Your task to perform on an android device: open app "Google Chrome" Image 0: 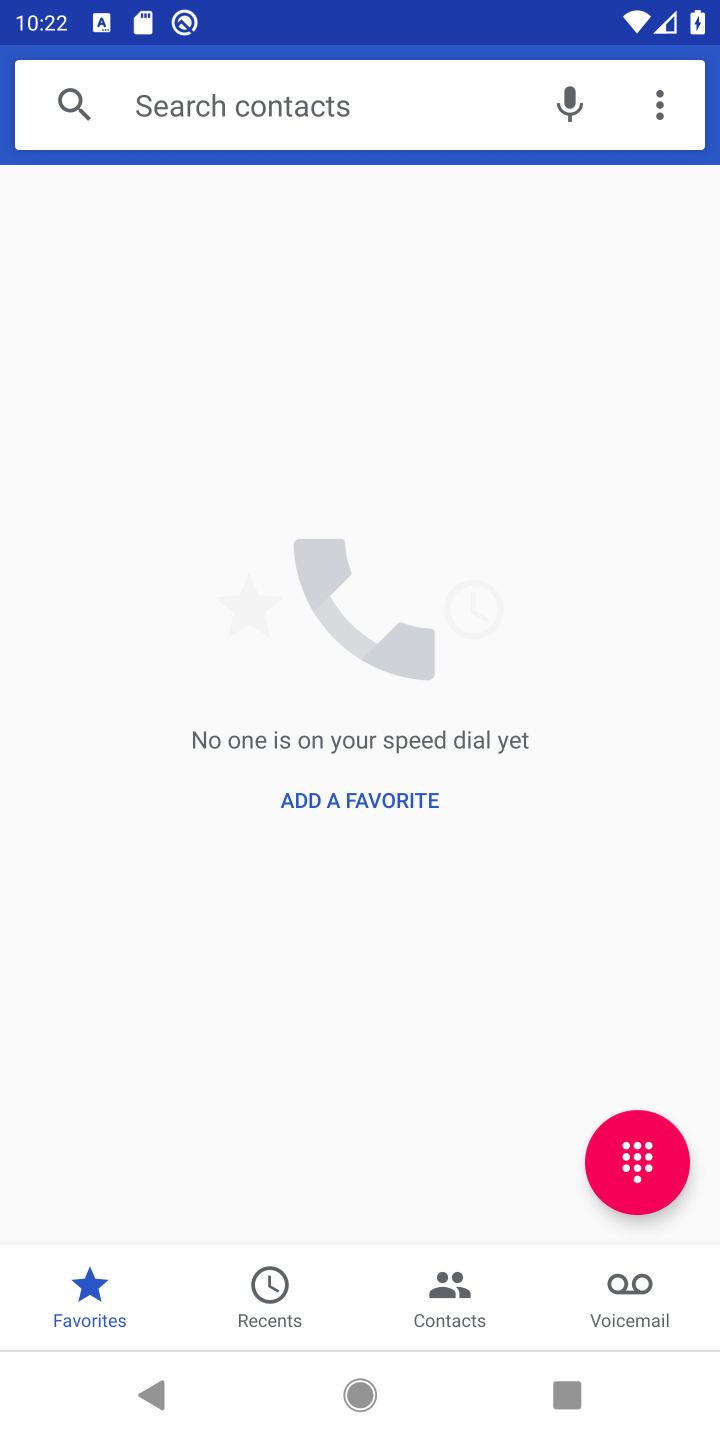
Step 0: press home button
Your task to perform on an android device: open app "Google Chrome" Image 1: 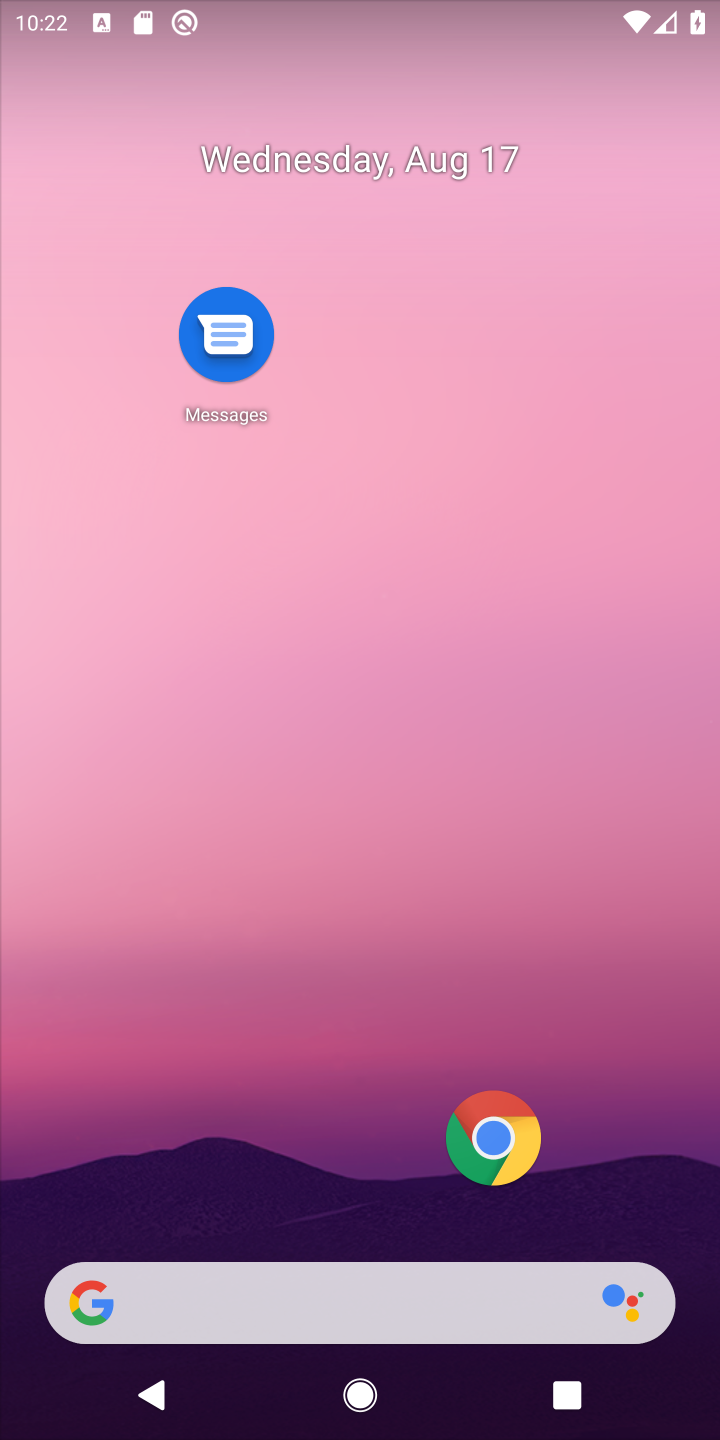
Step 1: drag from (287, 1057) to (338, 345)
Your task to perform on an android device: open app "Google Chrome" Image 2: 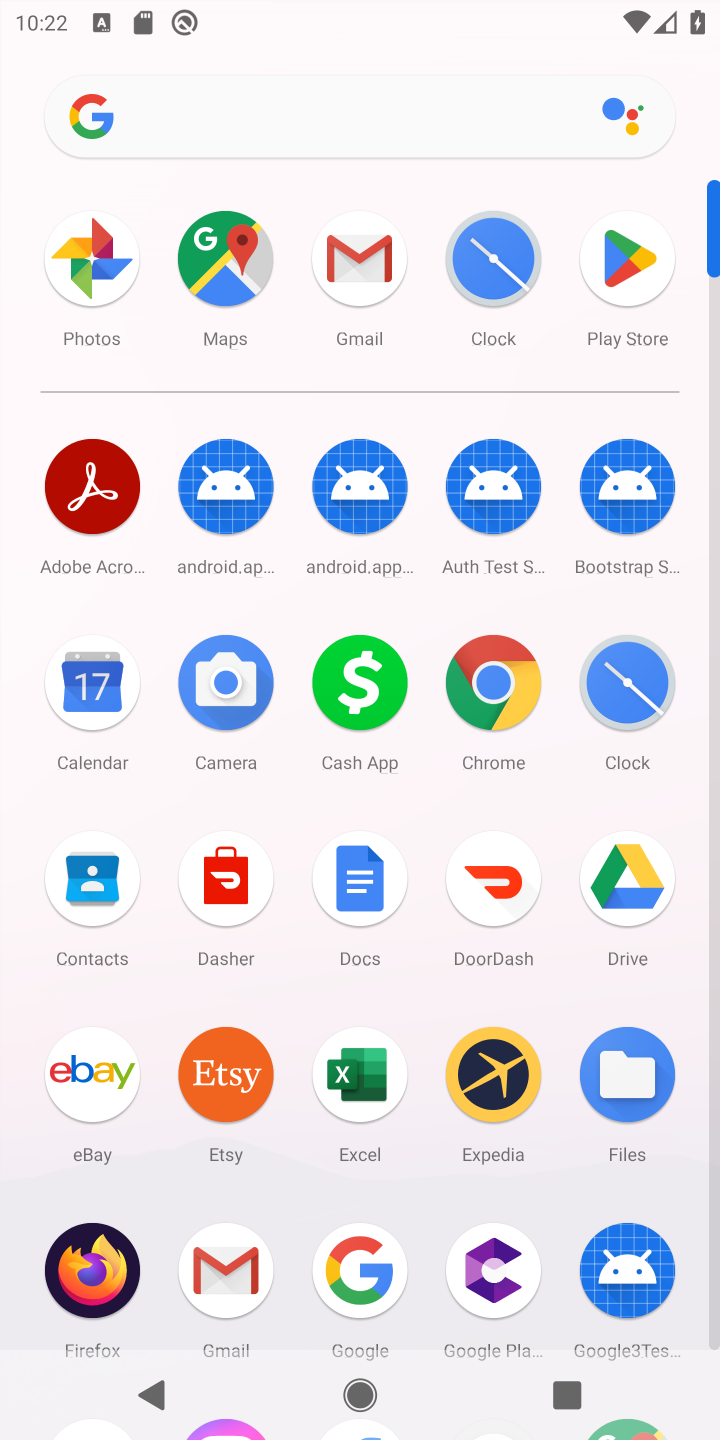
Step 2: click (614, 254)
Your task to perform on an android device: open app "Google Chrome" Image 3: 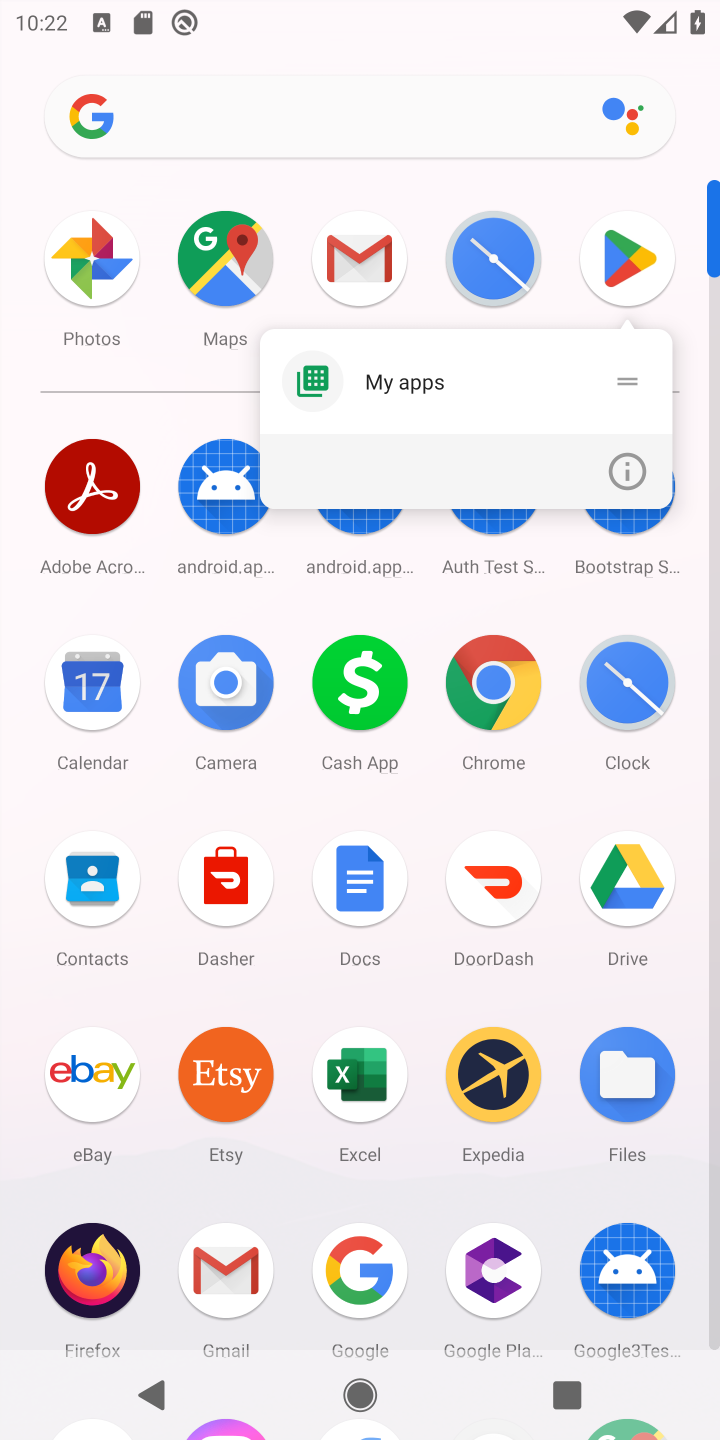
Step 3: click (643, 269)
Your task to perform on an android device: open app "Google Chrome" Image 4: 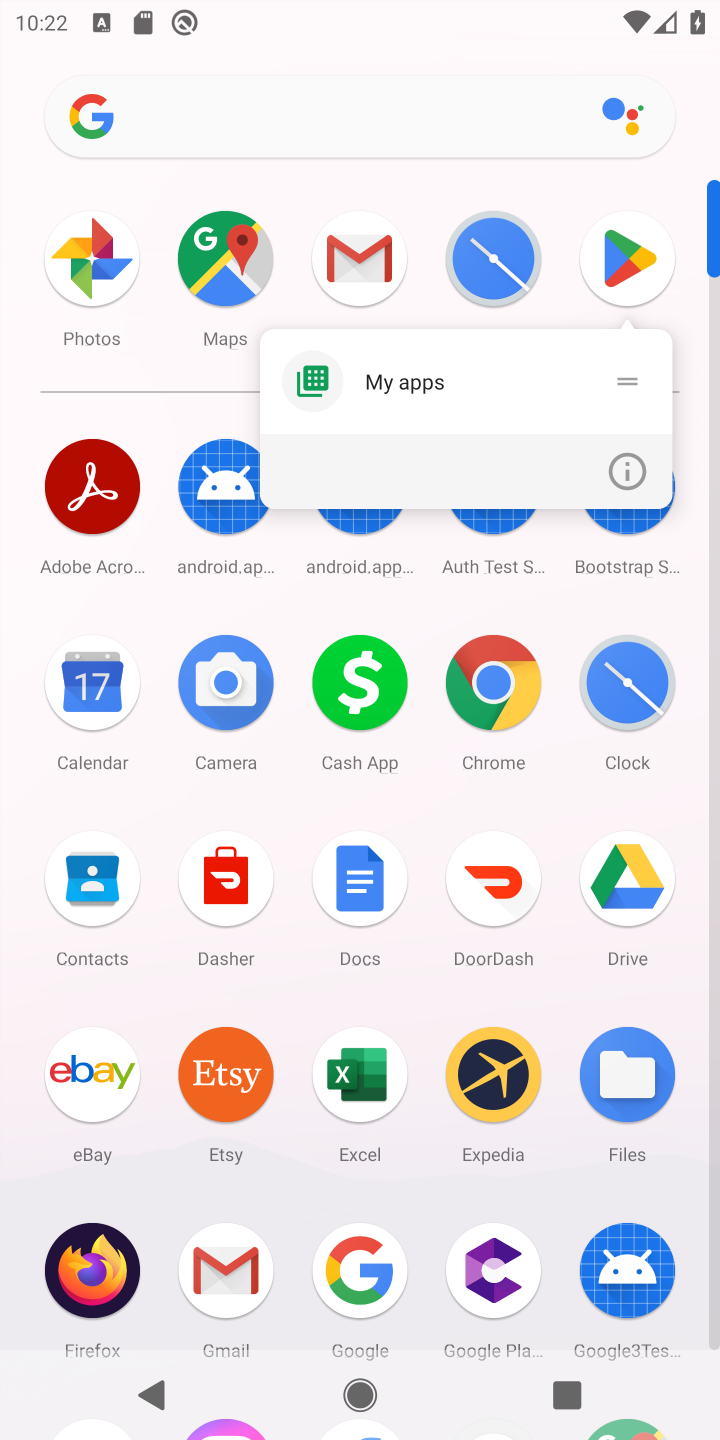
Step 4: click (639, 269)
Your task to perform on an android device: open app "Google Chrome" Image 5: 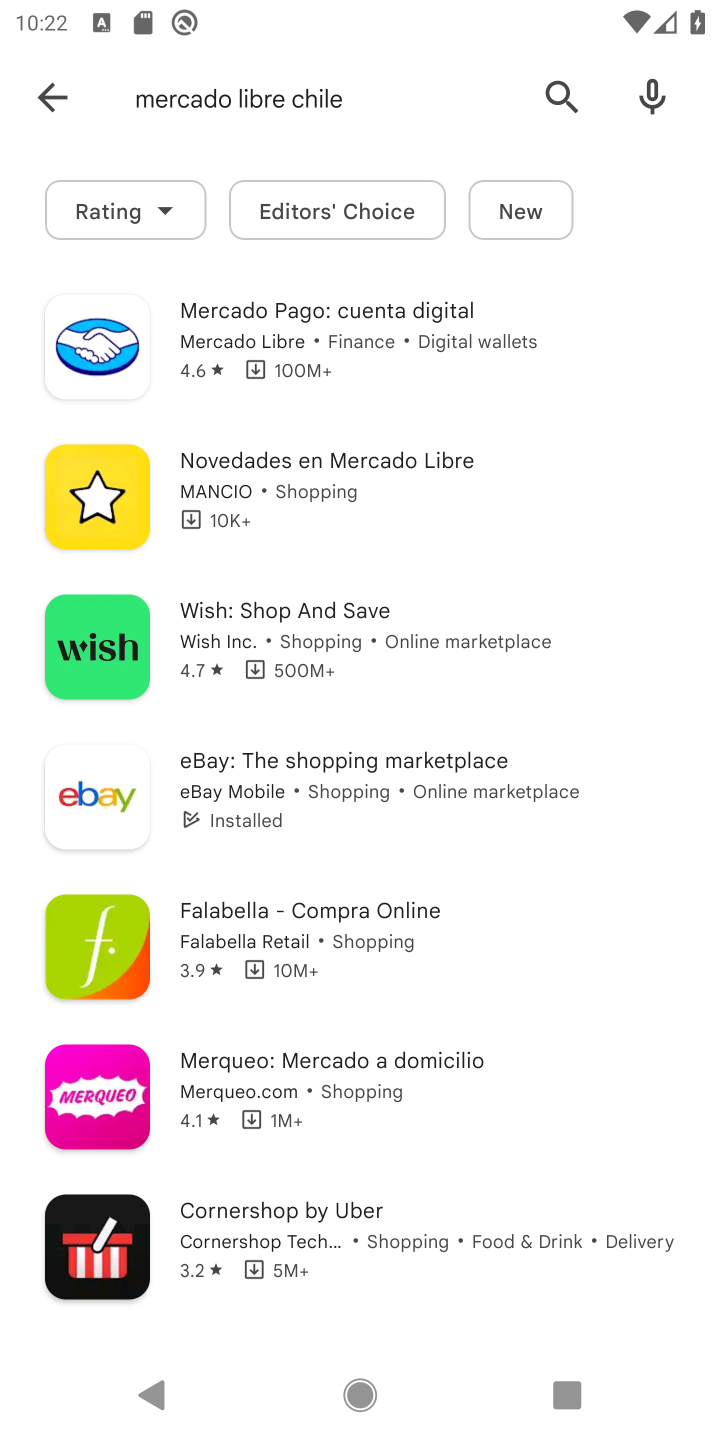
Step 5: click (100, 137)
Your task to perform on an android device: open app "Google Chrome" Image 6: 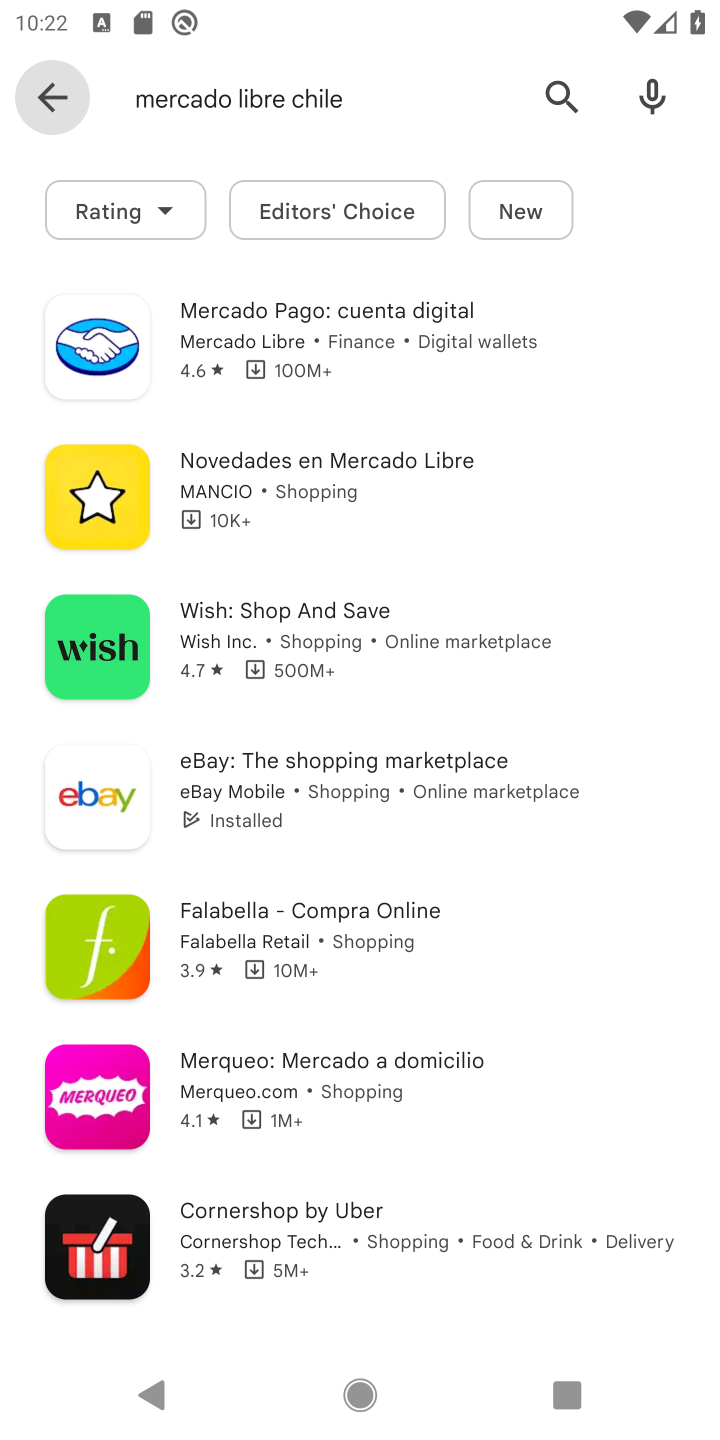
Step 6: click (60, 99)
Your task to perform on an android device: open app "Google Chrome" Image 7: 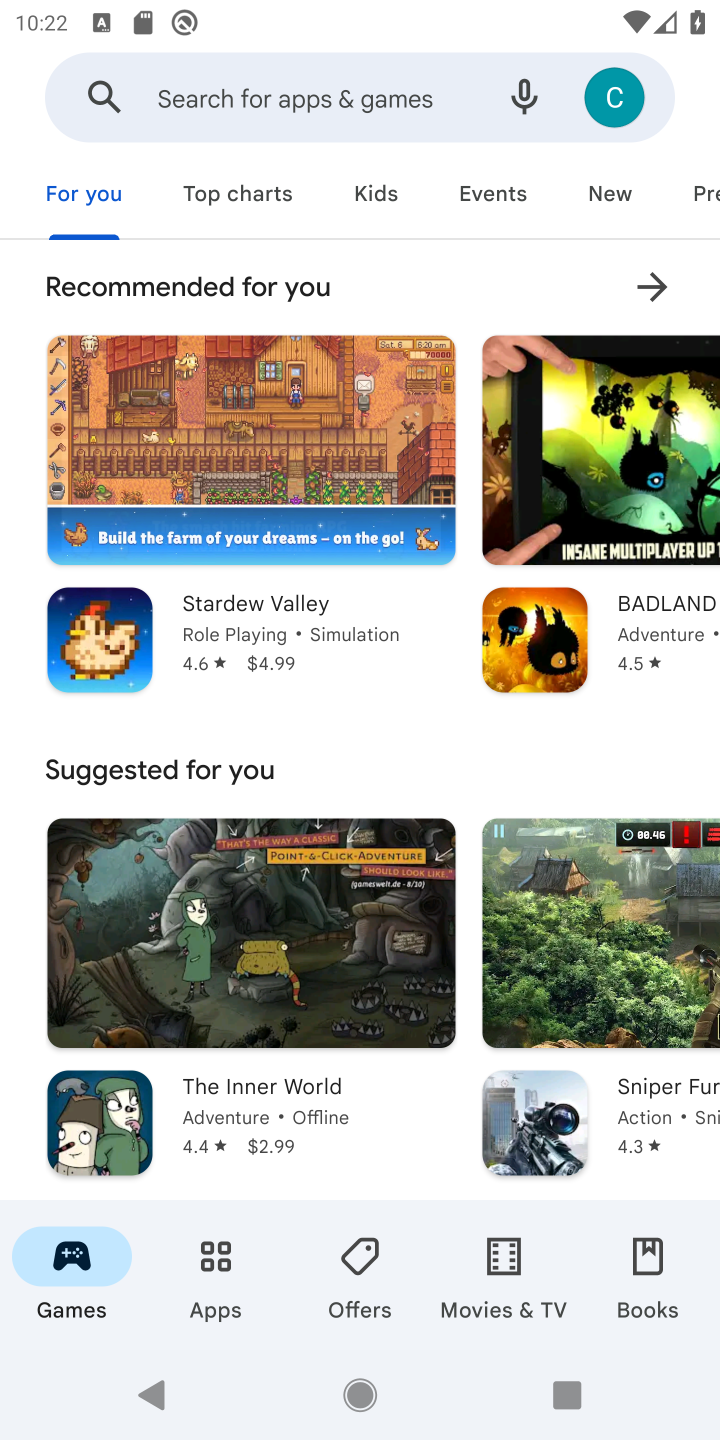
Step 7: click (285, 93)
Your task to perform on an android device: open app "Google Chrome" Image 8: 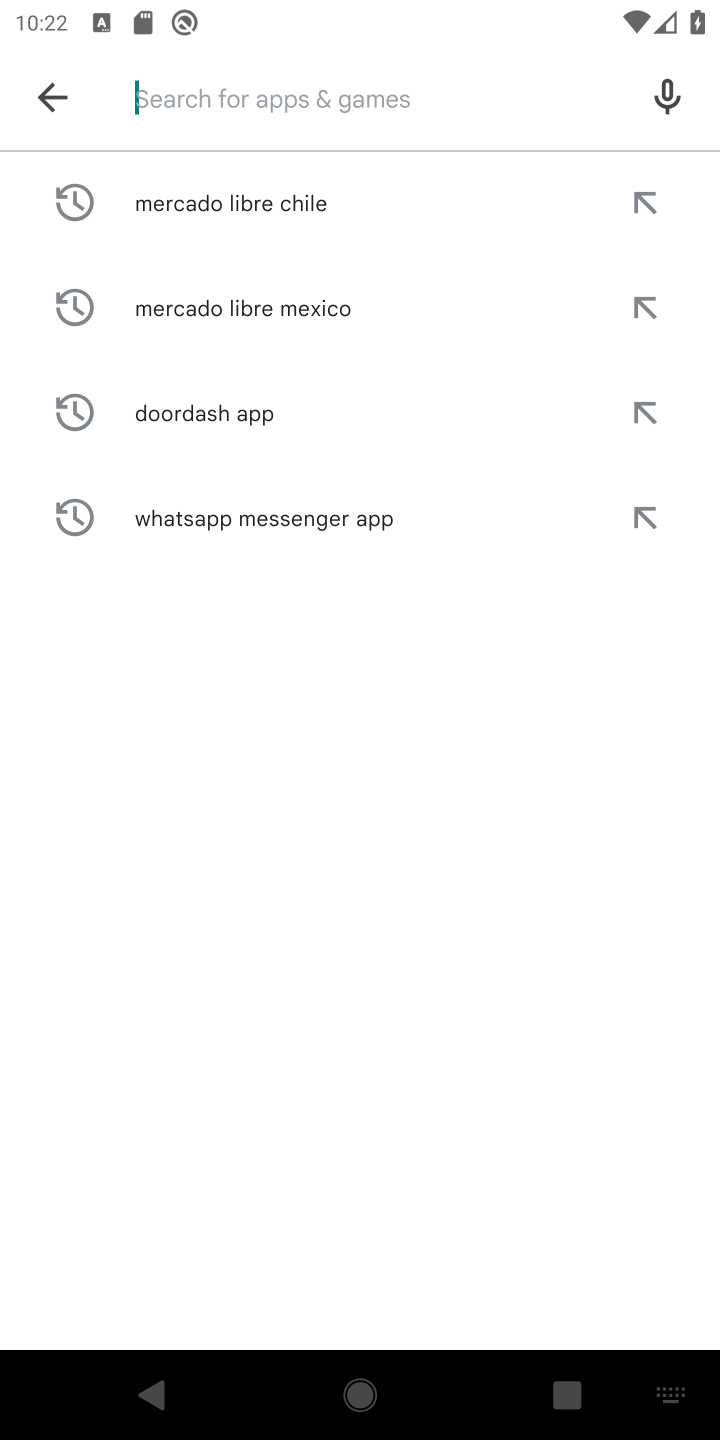
Step 8: type "google chrome "
Your task to perform on an android device: open app "Google Chrome" Image 9: 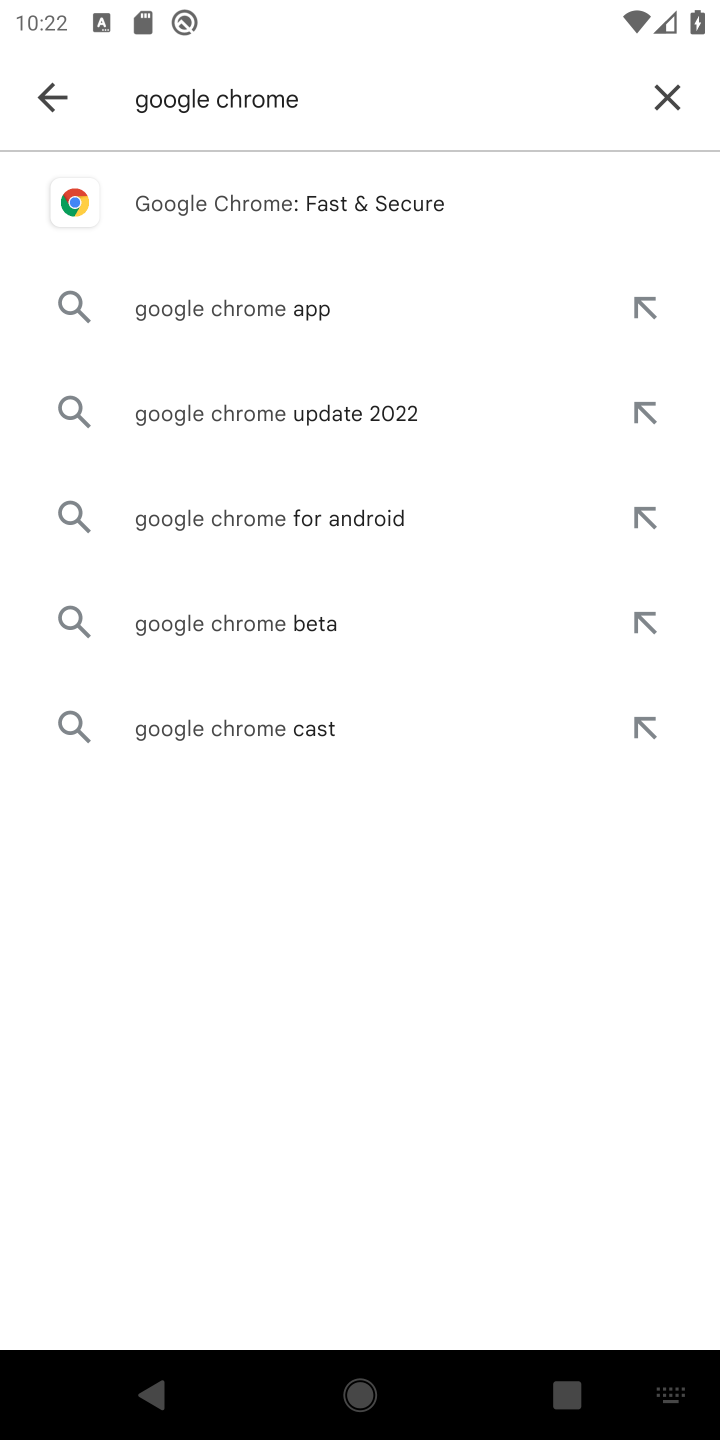
Step 9: click (269, 300)
Your task to perform on an android device: open app "Google Chrome" Image 10: 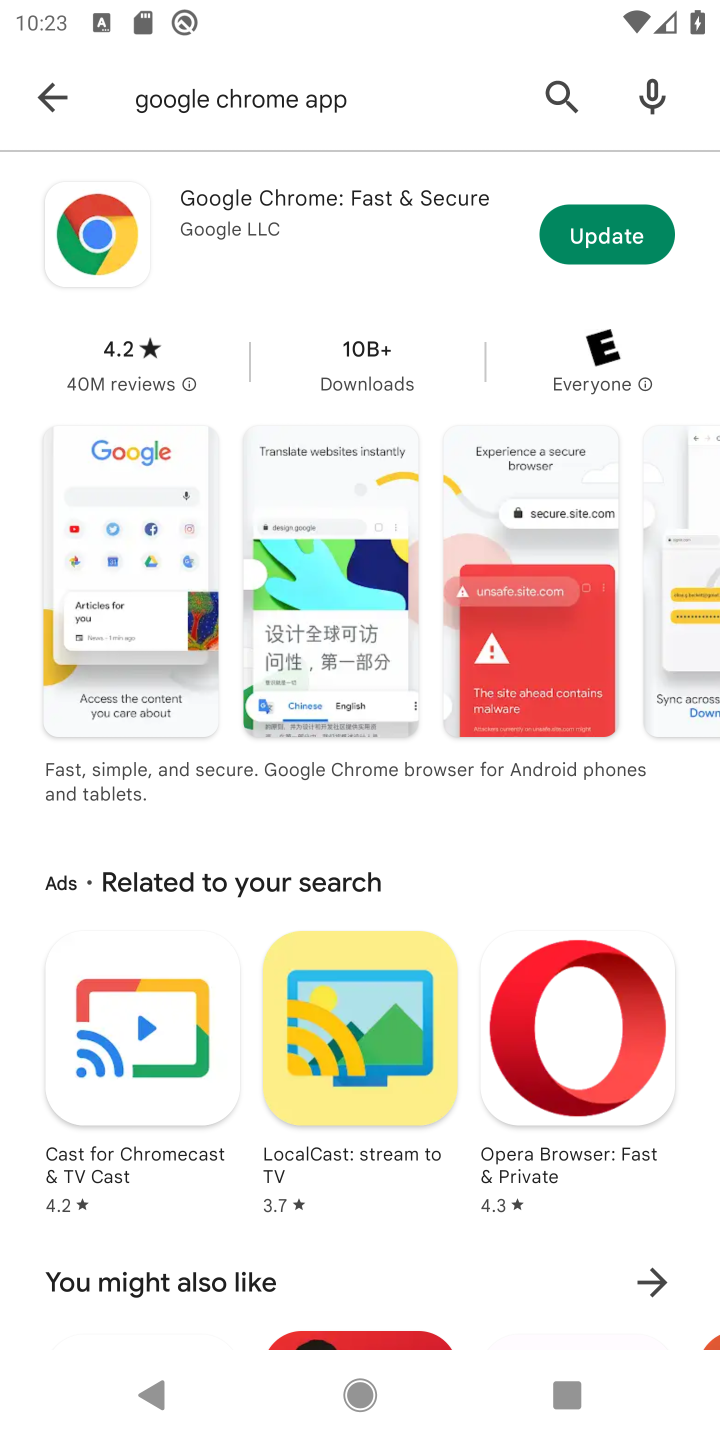
Step 10: click (400, 191)
Your task to perform on an android device: open app "Google Chrome" Image 11: 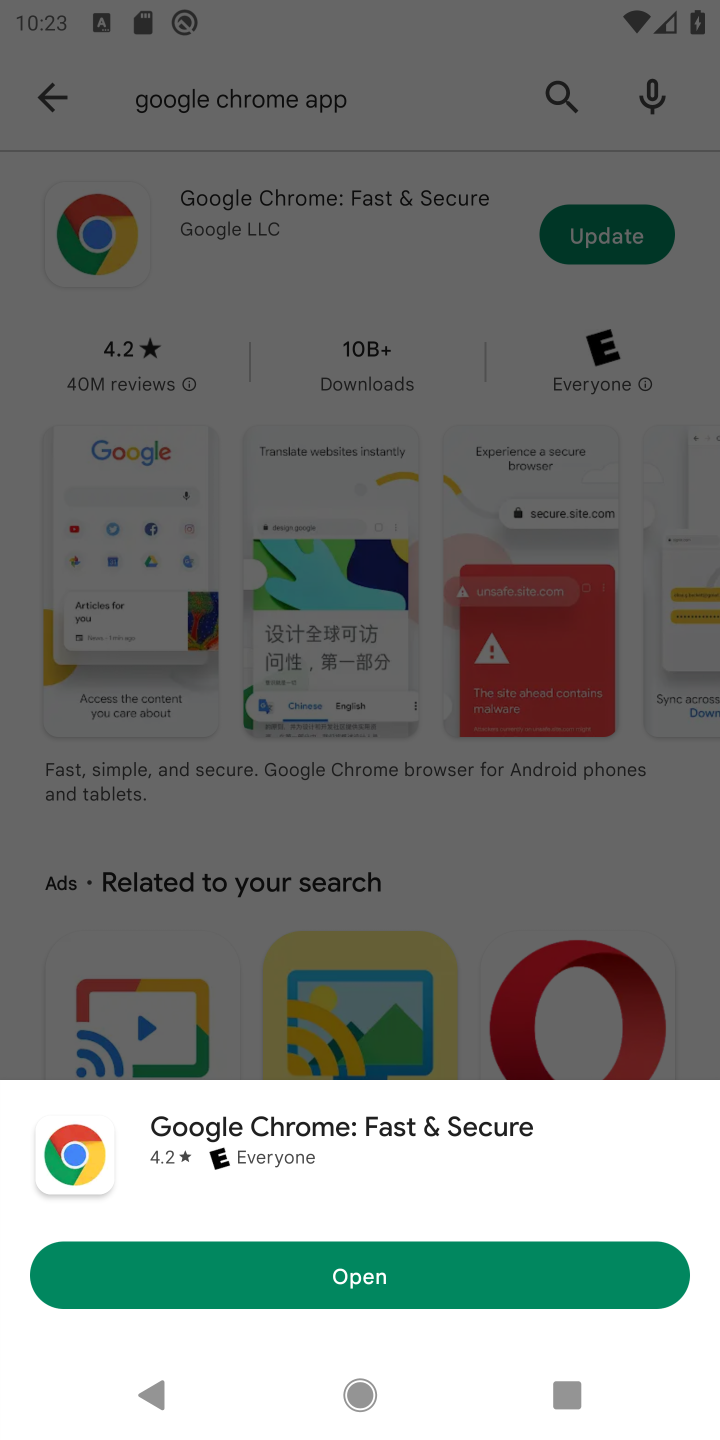
Step 11: task complete